Your task to perform on an android device: Open Google Image 0: 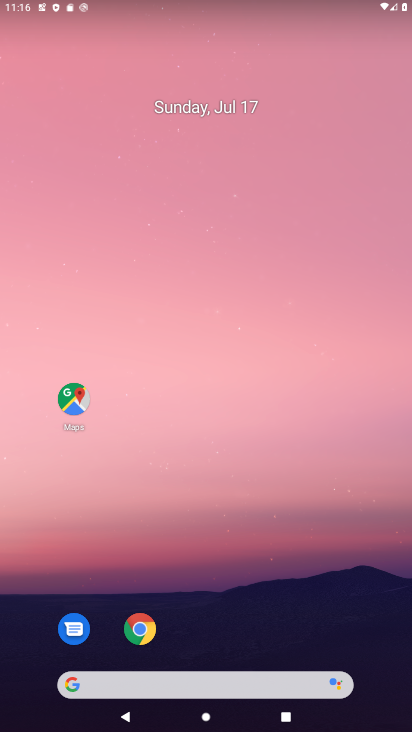
Step 0: drag from (196, 636) to (213, 301)
Your task to perform on an android device: Open Google Image 1: 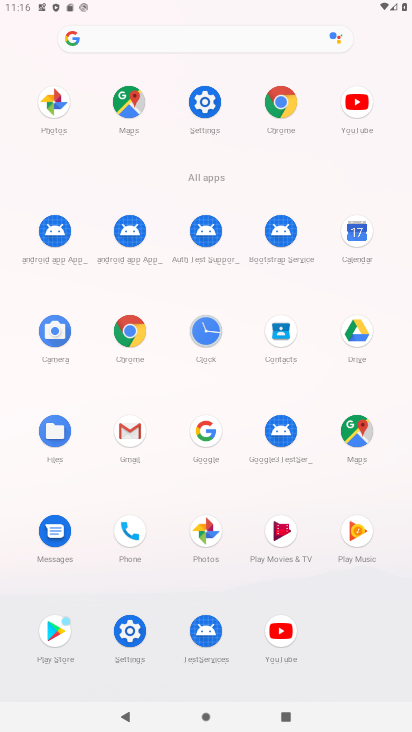
Step 1: click (208, 427)
Your task to perform on an android device: Open Google Image 2: 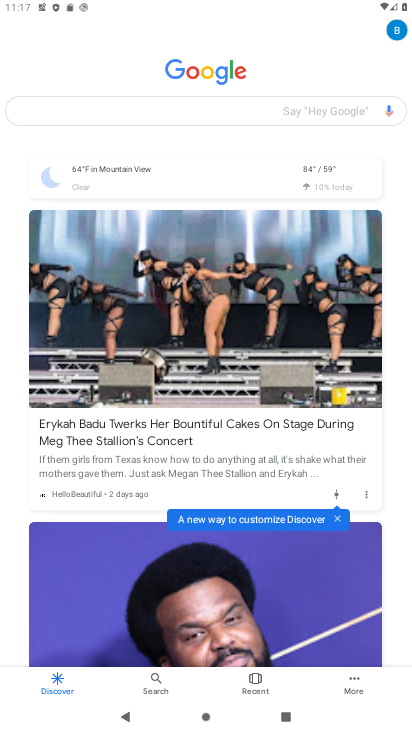
Step 2: task complete